Your task to perform on an android device: allow cookies in the chrome app Image 0: 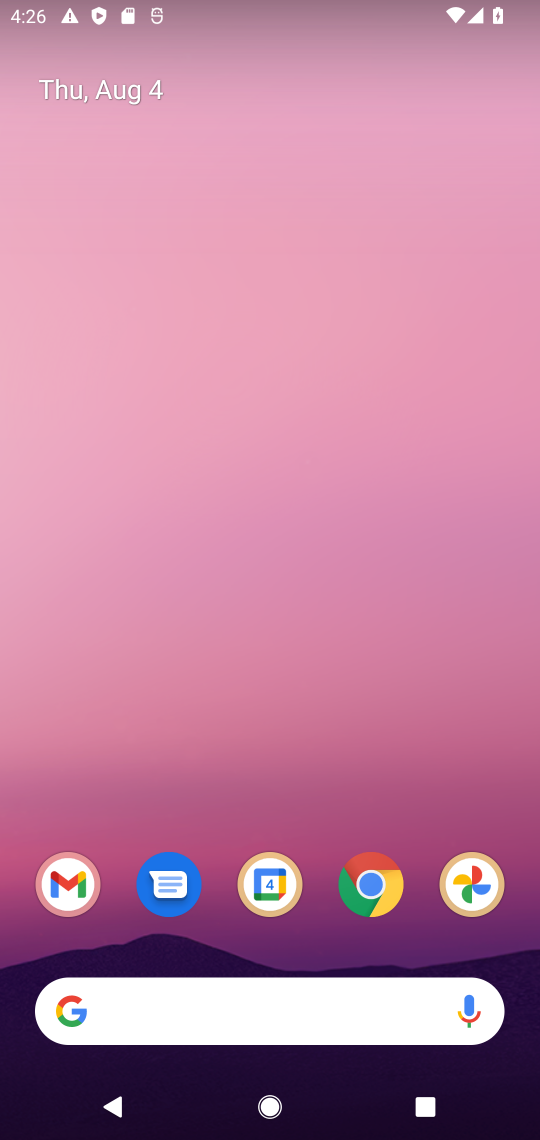
Step 0: click (369, 907)
Your task to perform on an android device: allow cookies in the chrome app Image 1: 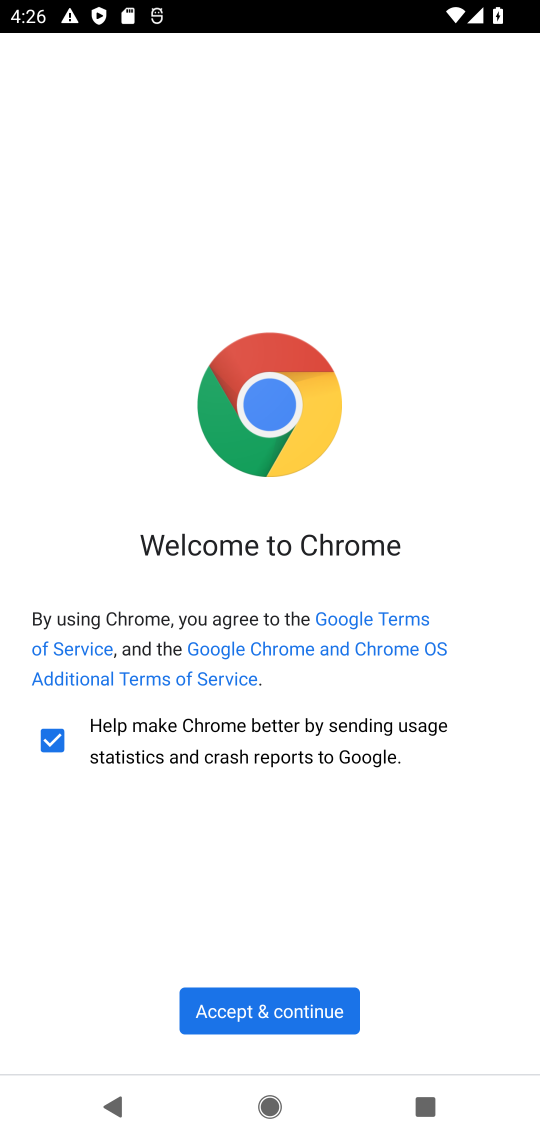
Step 1: click (327, 1014)
Your task to perform on an android device: allow cookies in the chrome app Image 2: 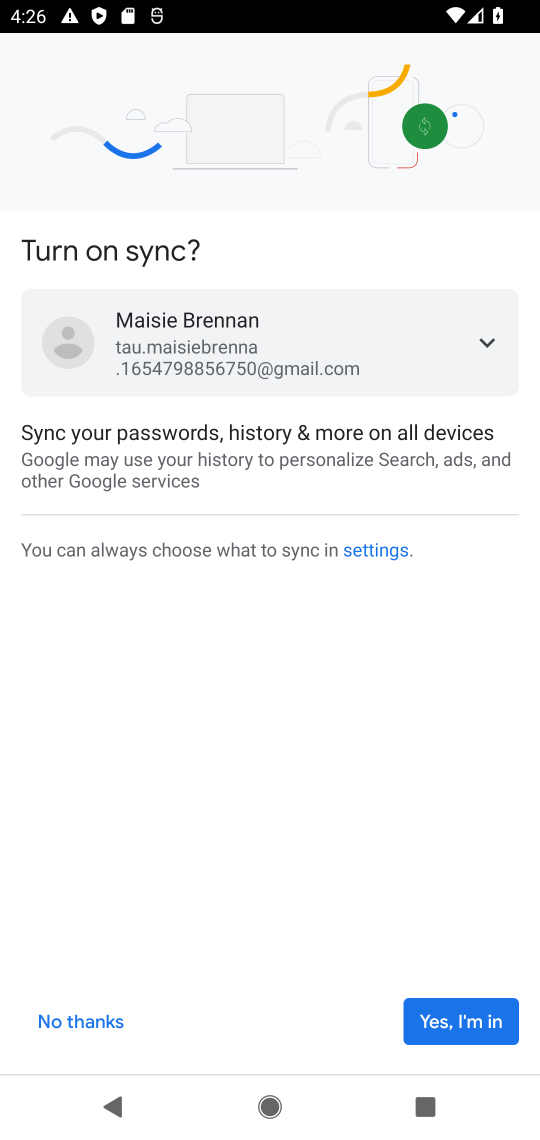
Step 2: click (479, 1028)
Your task to perform on an android device: allow cookies in the chrome app Image 3: 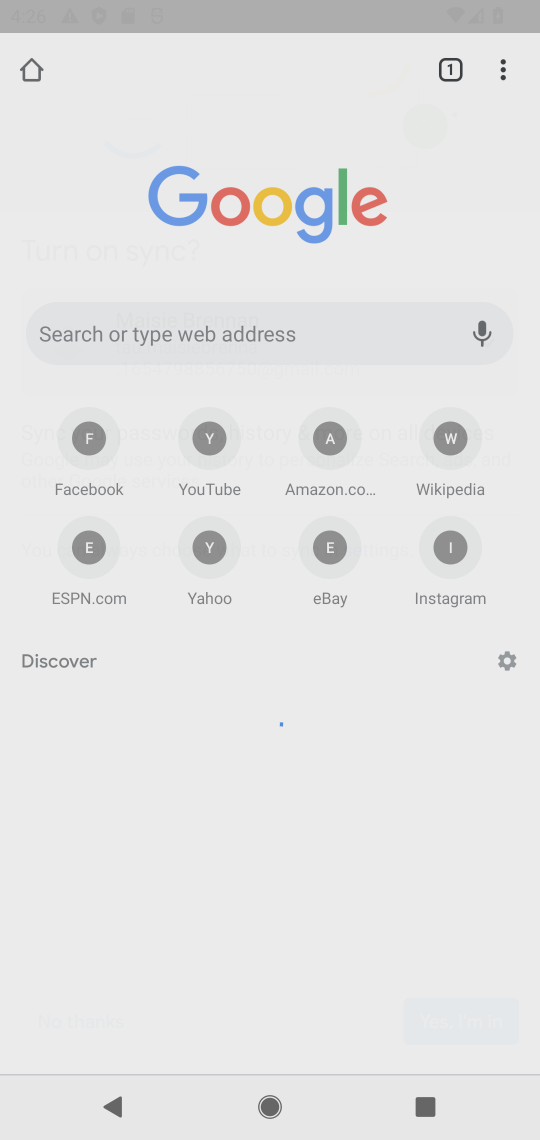
Step 3: click (478, 1019)
Your task to perform on an android device: allow cookies in the chrome app Image 4: 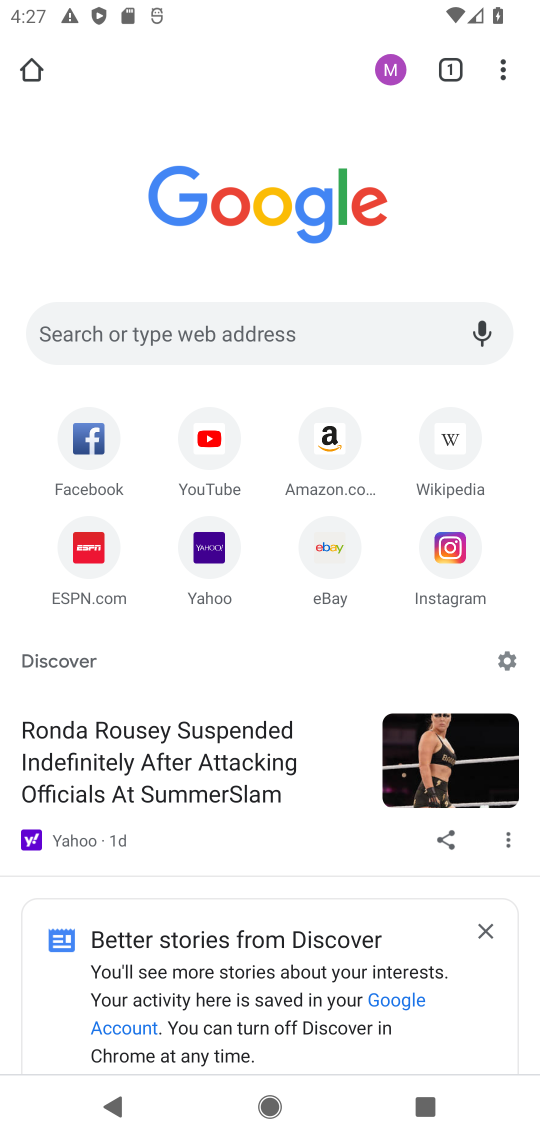
Step 4: click (506, 59)
Your task to perform on an android device: allow cookies in the chrome app Image 5: 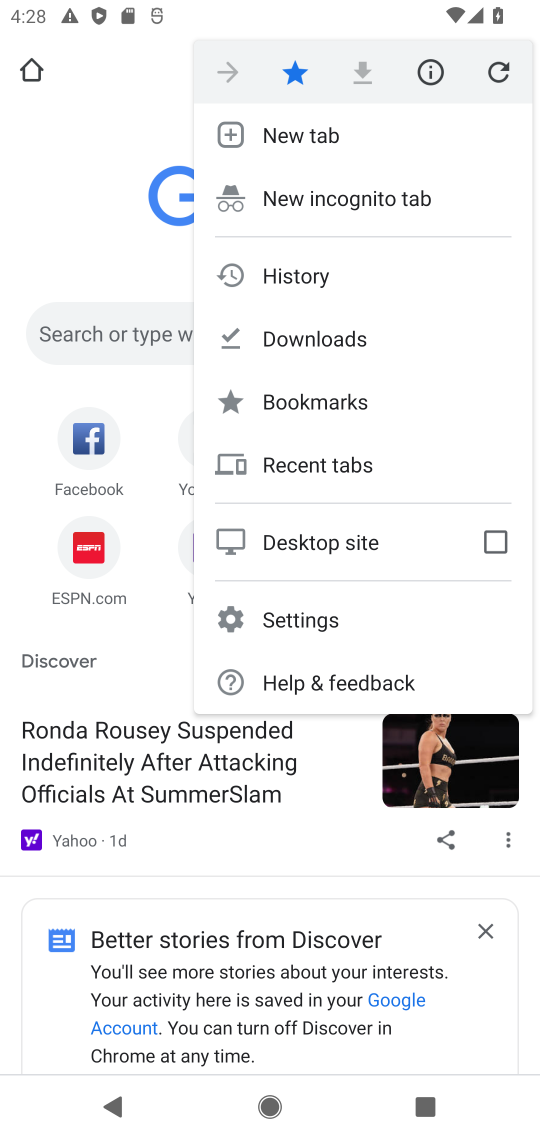
Step 5: click (349, 608)
Your task to perform on an android device: allow cookies in the chrome app Image 6: 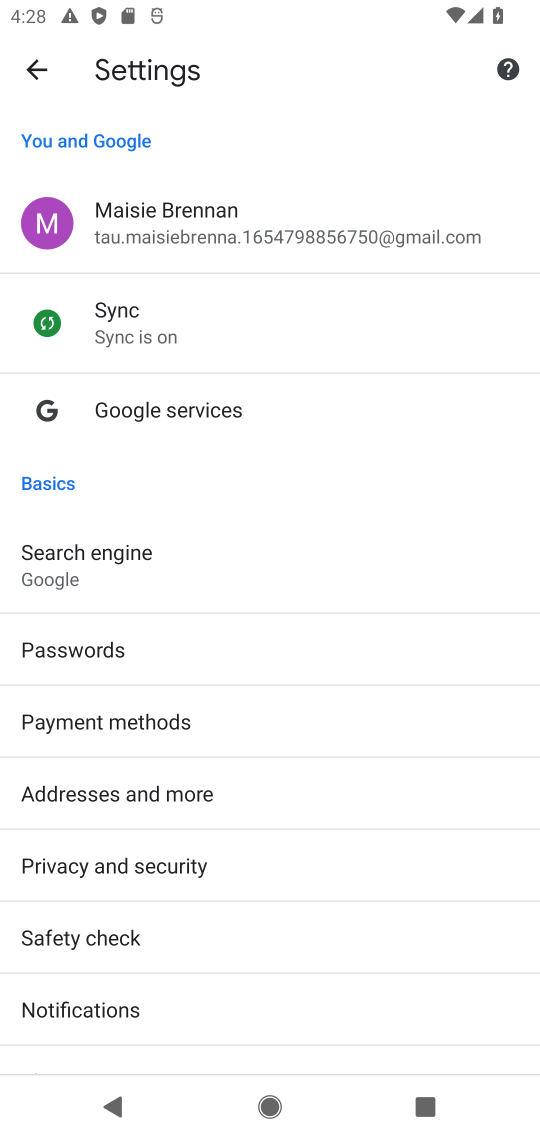
Step 6: drag from (215, 968) to (260, 732)
Your task to perform on an android device: allow cookies in the chrome app Image 7: 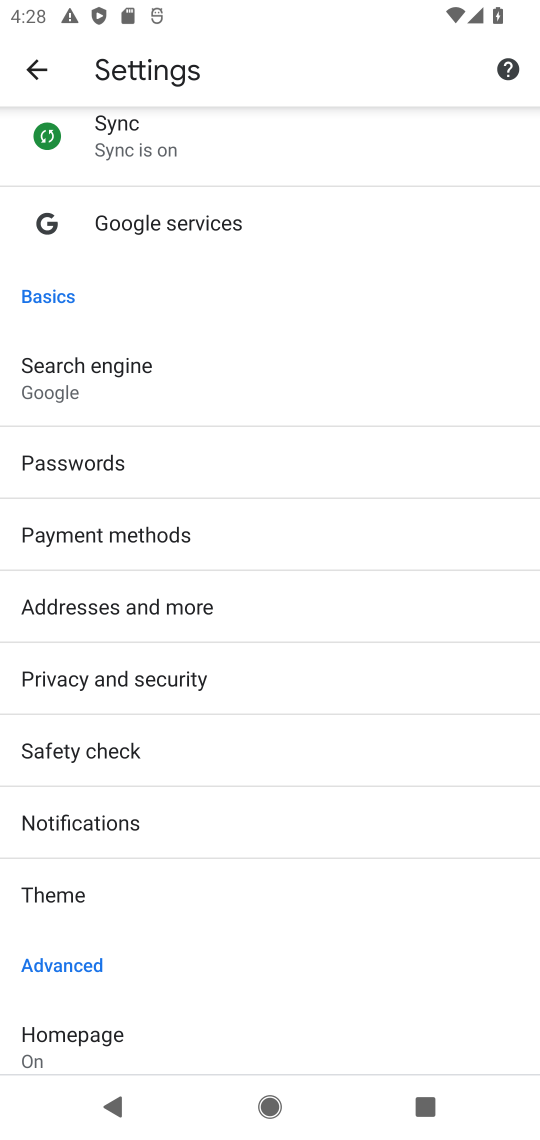
Step 7: drag from (239, 977) to (326, 678)
Your task to perform on an android device: allow cookies in the chrome app Image 8: 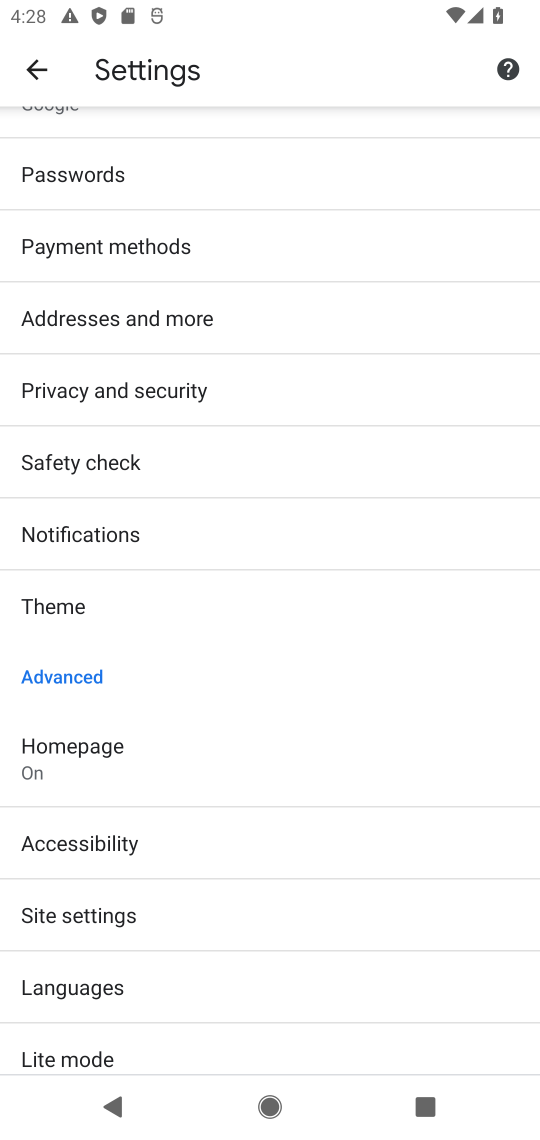
Step 8: click (138, 915)
Your task to perform on an android device: allow cookies in the chrome app Image 9: 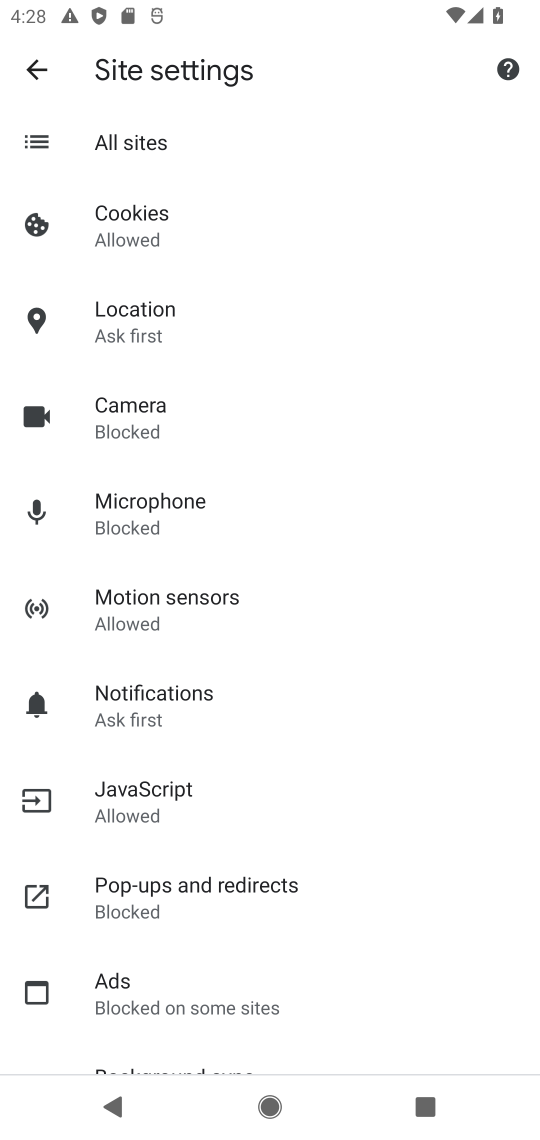
Step 9: click (171, 211)
Your task to perform on an android device: allow cookies in the chrome app Image 10: 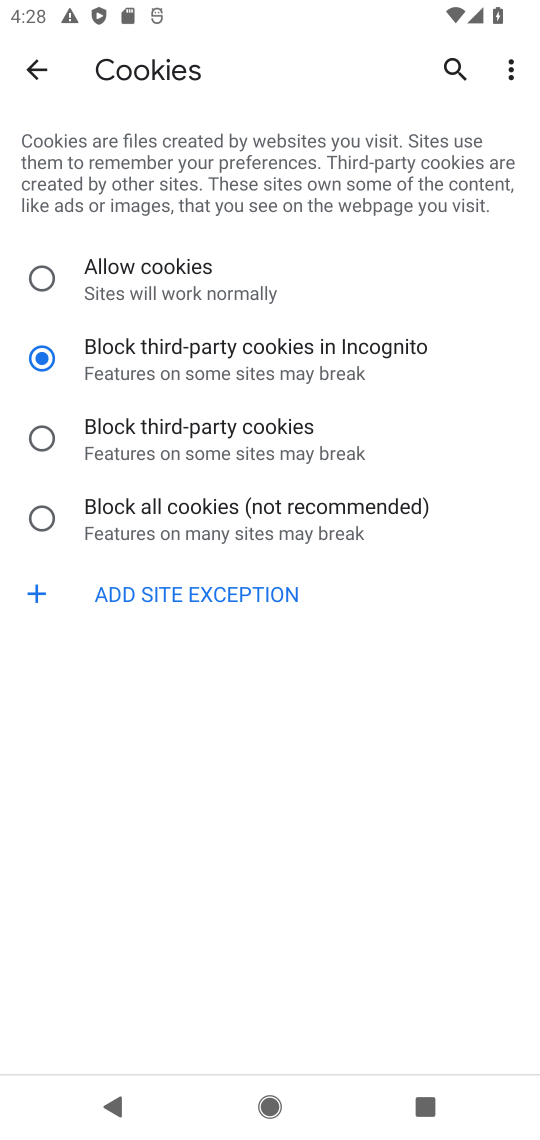
Step 10: task complete